Your task to perform on an android device: change text size in settings app Image 0: 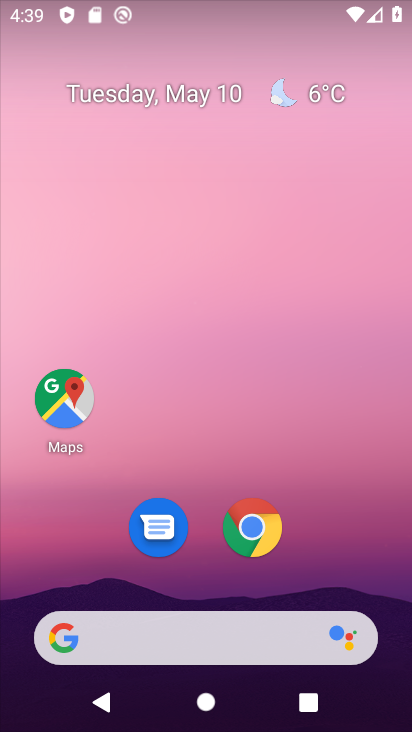
Step 0: drag from (296, 536) to (298, 50)
Your task to perform on an android device: change text size in settings app Image 1: 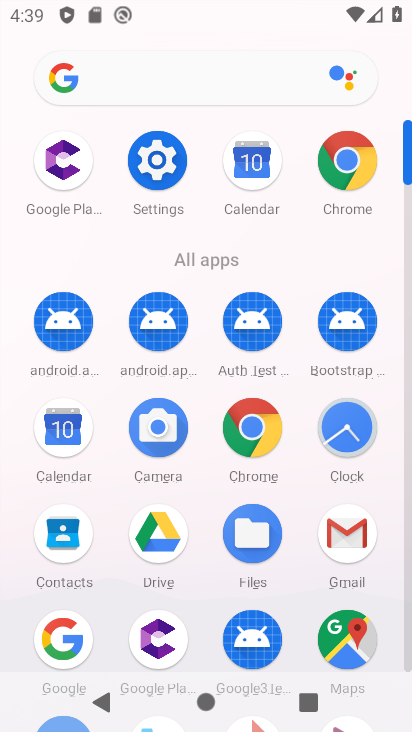
Step 1: click (139, 153)
Your task to perform on an android device: change text size in settings app Image 2: 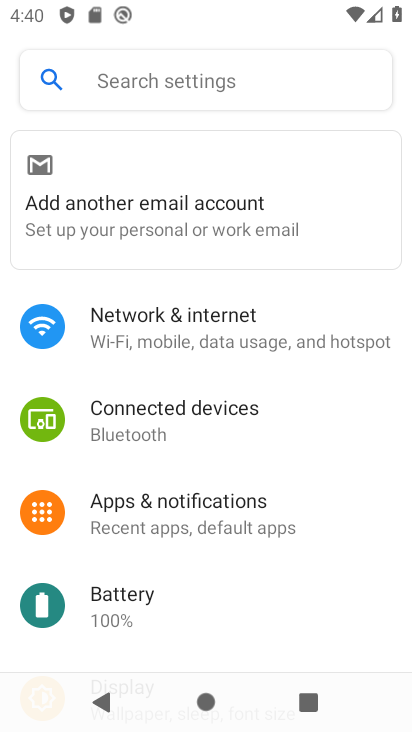
Step 2: drag from (158, 566) to (196, 339)
Your task to perform on an android device: change text size in settings app Image 3: 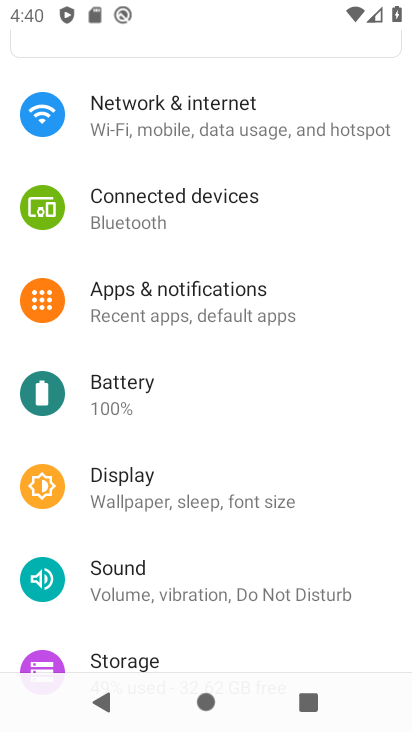
Step 3: click (190, 495)
Your task to perform on an android device: change text size in settings app Image 4: 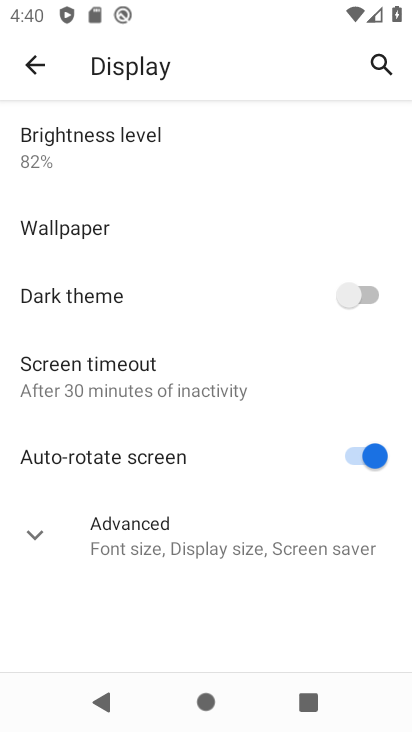
Step 4: click (139, 525)
Your task to perform on an android device: change text size in settings app Image 5: 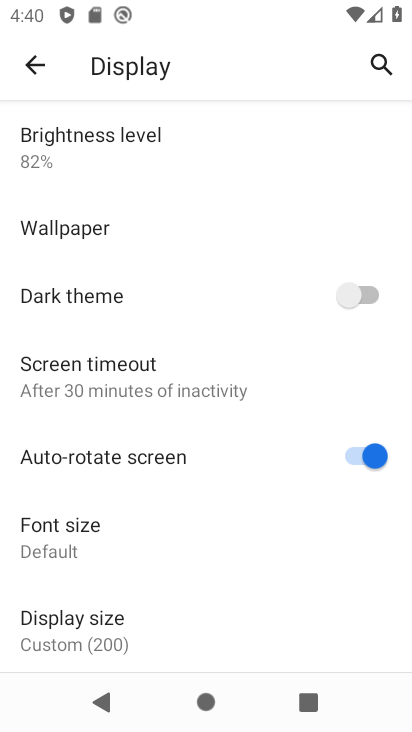
Step 5: click (100, 531)
Your task to perform on an android device: change text size in settings app Image 6: 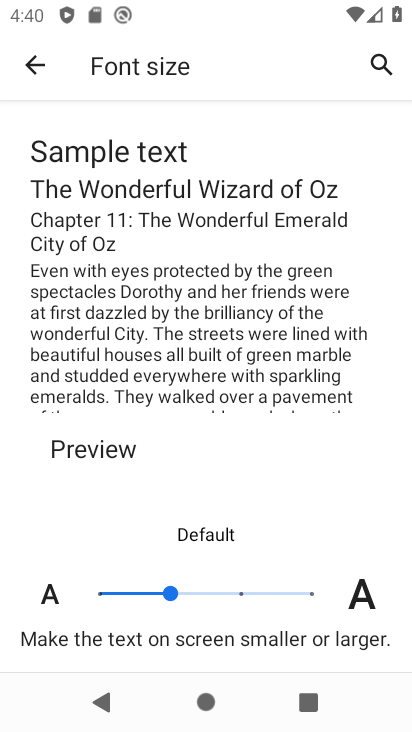
Step 6: click (307, 589)
Your task to perform on an android device: change text size in settings app Image 7: 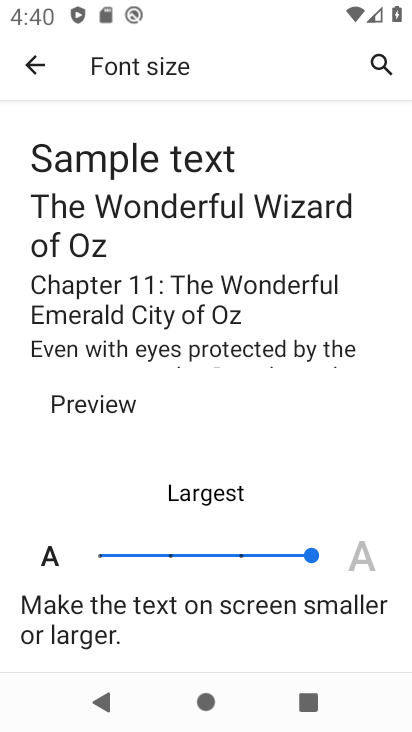
Step 7: task complete